Your task to perform on an android device: Open internet settings Image 0: 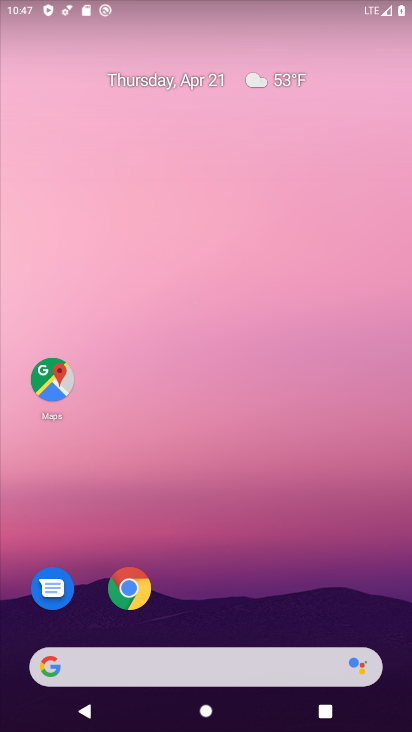
Step 0: drag from (237, 637) to (236, 314)
Your task to perform on an android device: Open internet settings Image 1: 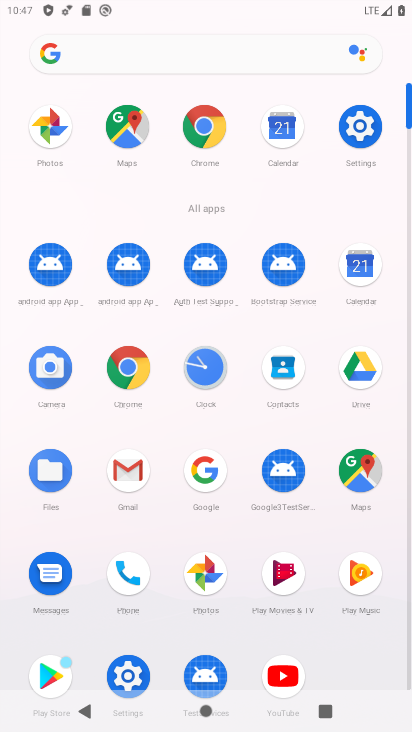
Step 1: click (367, 123)
Your task to perform on an android device: Open internet settings Image 2: 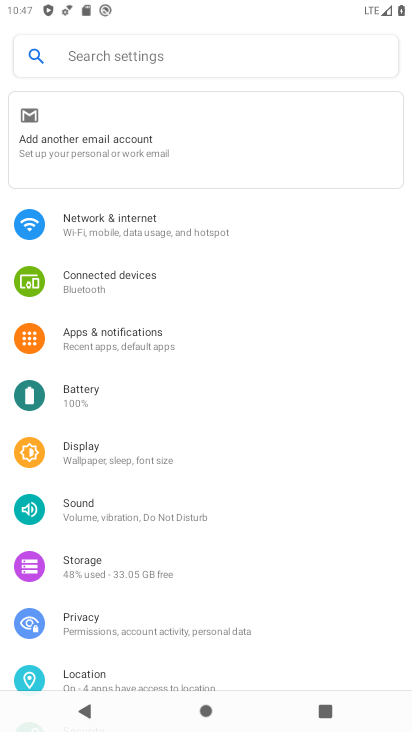
Step 2: click (150, 234)
Your task to perform on an android device: Open internet settings Image 3: 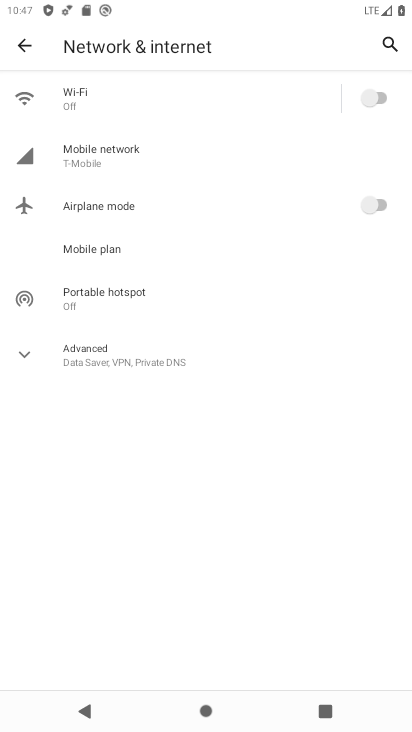
Step 3: click (92, 347)
Your task to perform on an android device: Open internet settings Image 4: 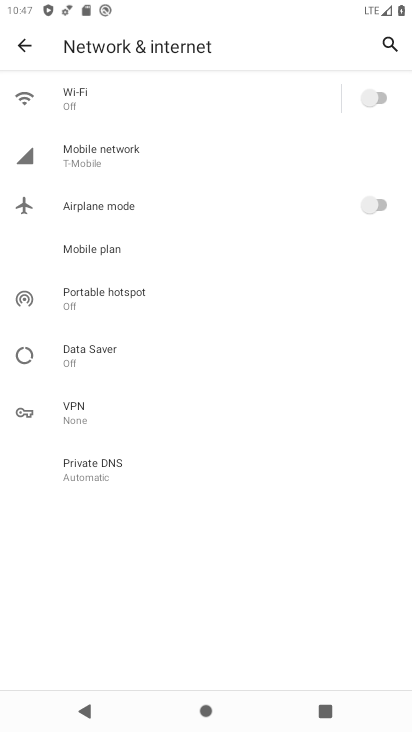
Step 4: task complete